Your task to perform on an android device: Check the weather Image 0: 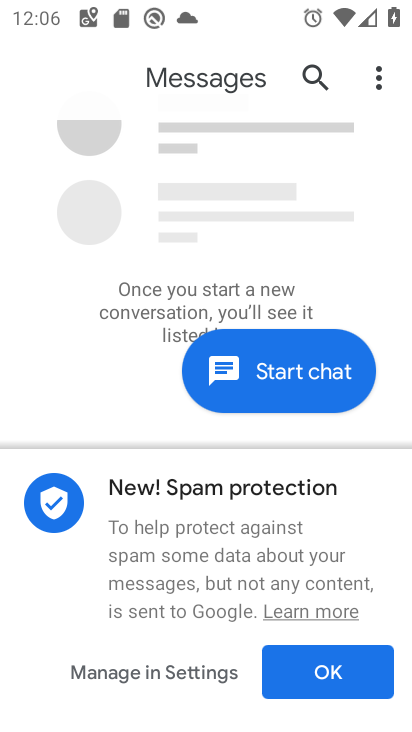
Step 0: press home button
Your task to perform on an android device: Check the weather Image 1: 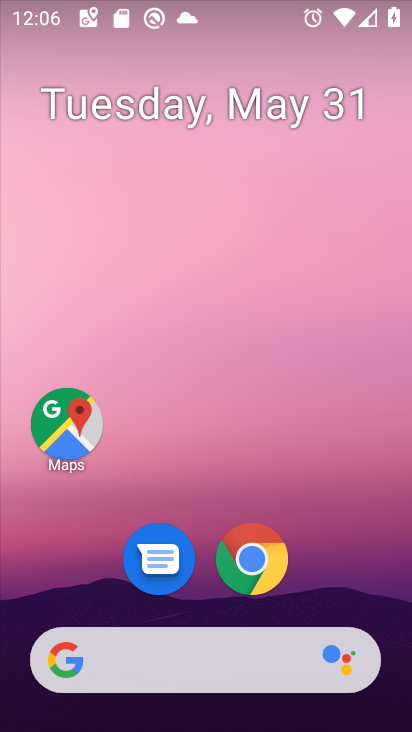
Step 1: click (259, 655)
Your task to perform on an android device: Check the weather Image 2: 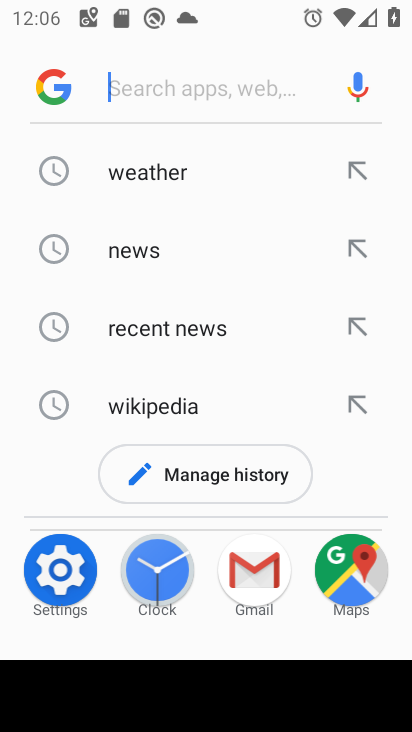
Step 2: click (198, 174)
Your task to perform on an android device: Check the weather Image 3: 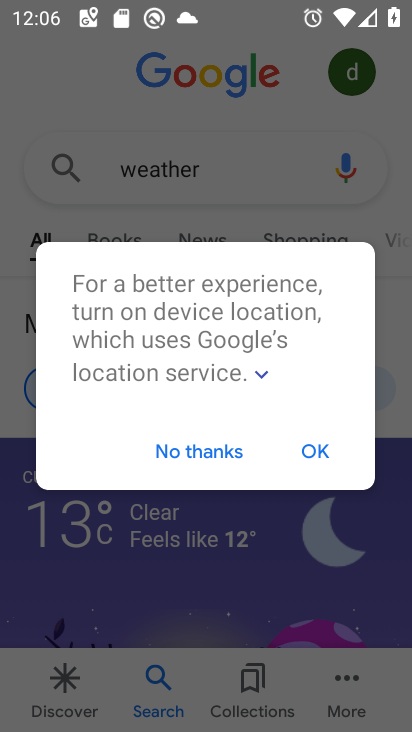
Step 3: click (194, 453)
Your task to perform on an android device: Check the weather Image 4: 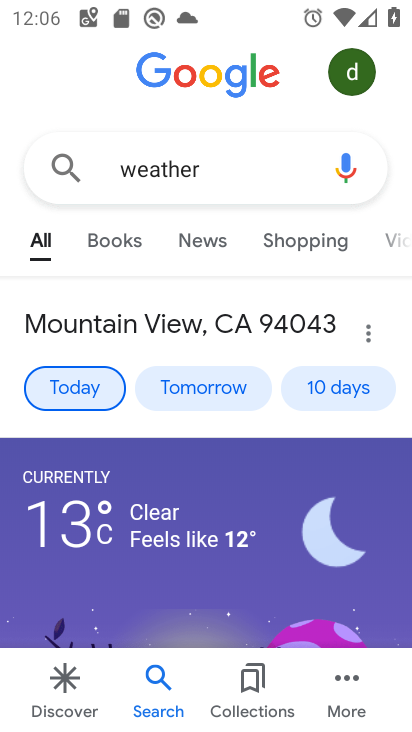
Step 4: task complete